Your task to perform on an android device: open chrome privacy settings Image 0: 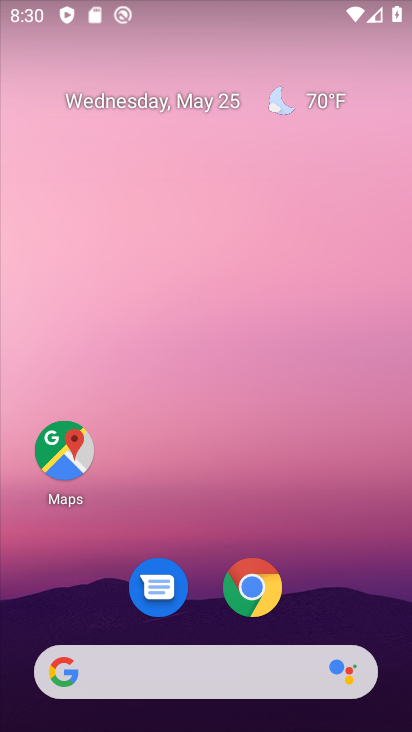
Step 0: click (236, 576)
Your task to perform on an android device: open chrome privacy settings Image 1: 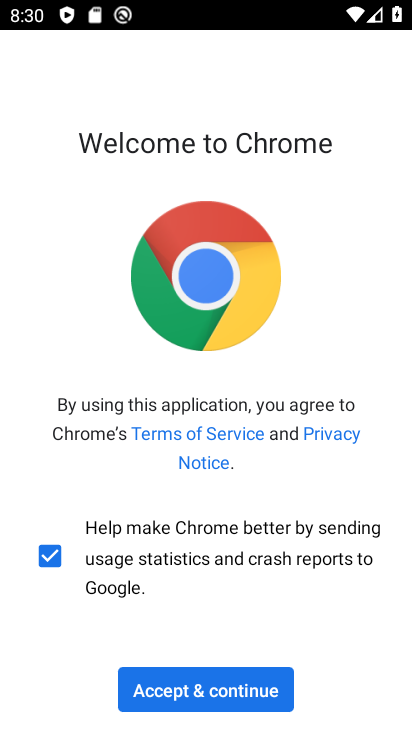
Step 1: click (236, 695)
Your task to perform on an android device: open chrome privacy settings Image 2: 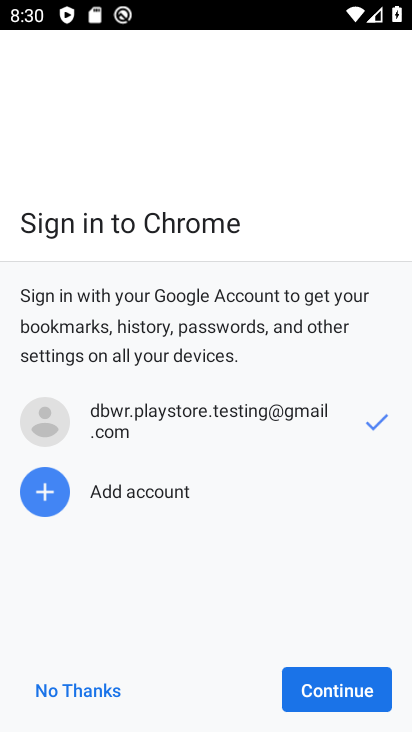
Step 2: click (329, 680)
Your task to perform on an android device: open chrome privacy settings Image 3: 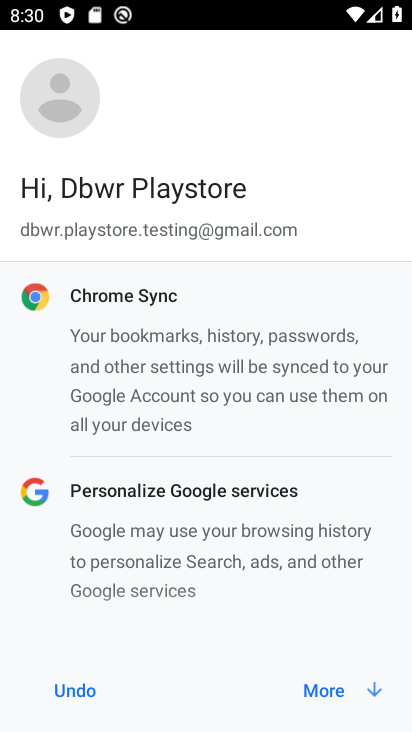
Step 3: click (330, 689)
Your task to perform on an android device: open chrome privacy settings Image 4: 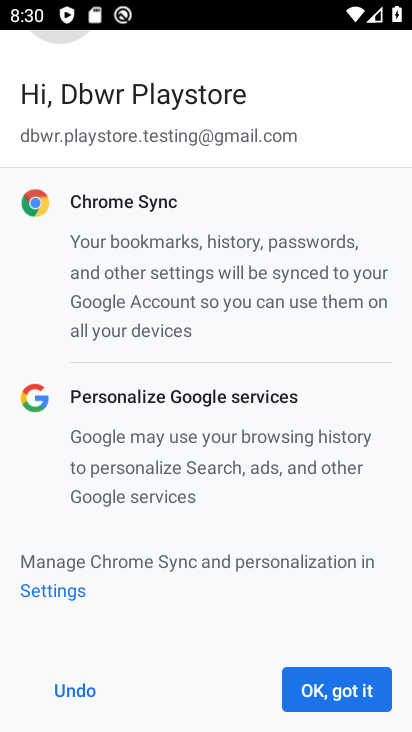
Step 4: click (330, 689)
Your task to perform on an android device: open chrome privacy settings Image 5: 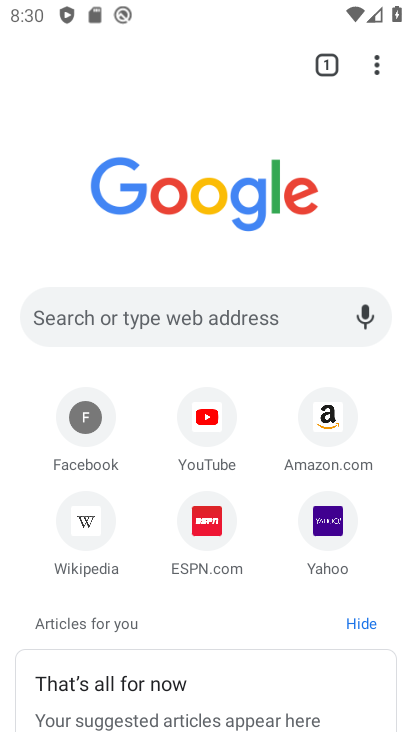
Step 5: click (372, 75)
Your task to perform on an android device: open chrome privacy settings Image 6: 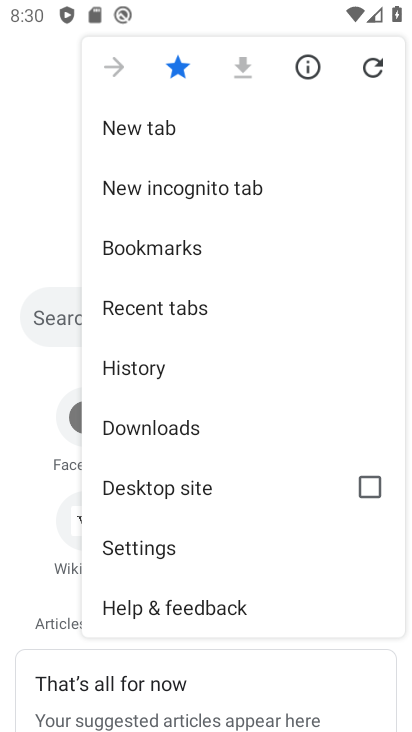
Step 6: click (181, 555)
Your task to perform on an android device: open chrome privacy settings Image 7: 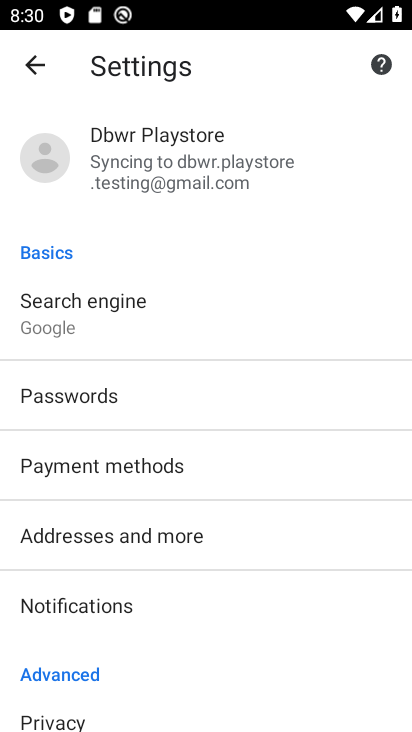
Step 7: drag from (158, 576) to (180, 204)
Your task to perform on an android device: open chrome privacy settings Image 8: 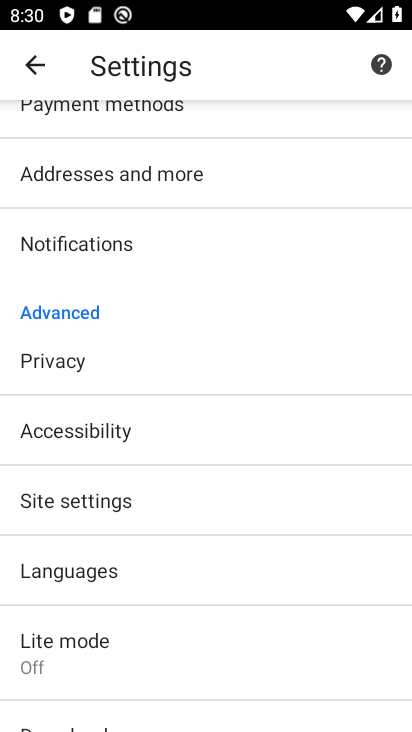
Step 8: click (66, 378)
Your task to perform on an android device: open chrome privacy settings Image 9: 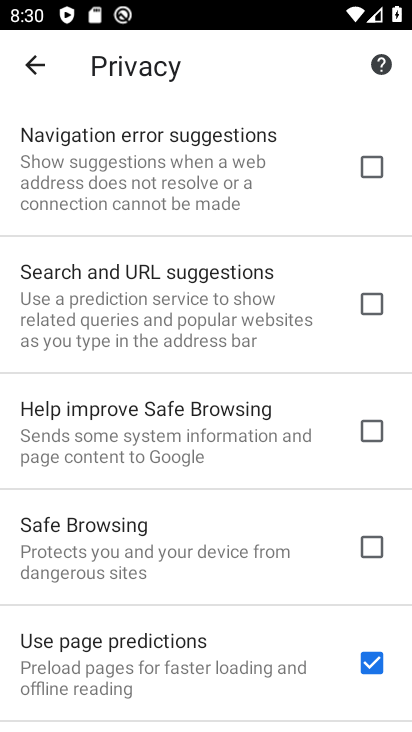
Step 9: task complete